Your task to perform on an android device: Go to accessibility settings Image 0: 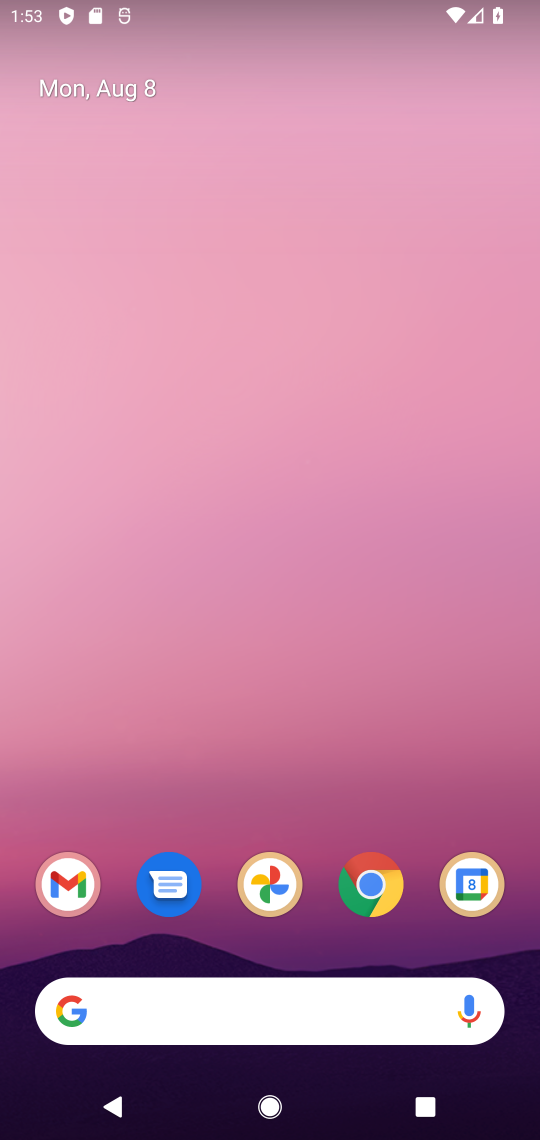
Step 0: drag from (295, 775) to (292, 132)
Your task to perform on an android device: Go to accessibility settings Image 1: 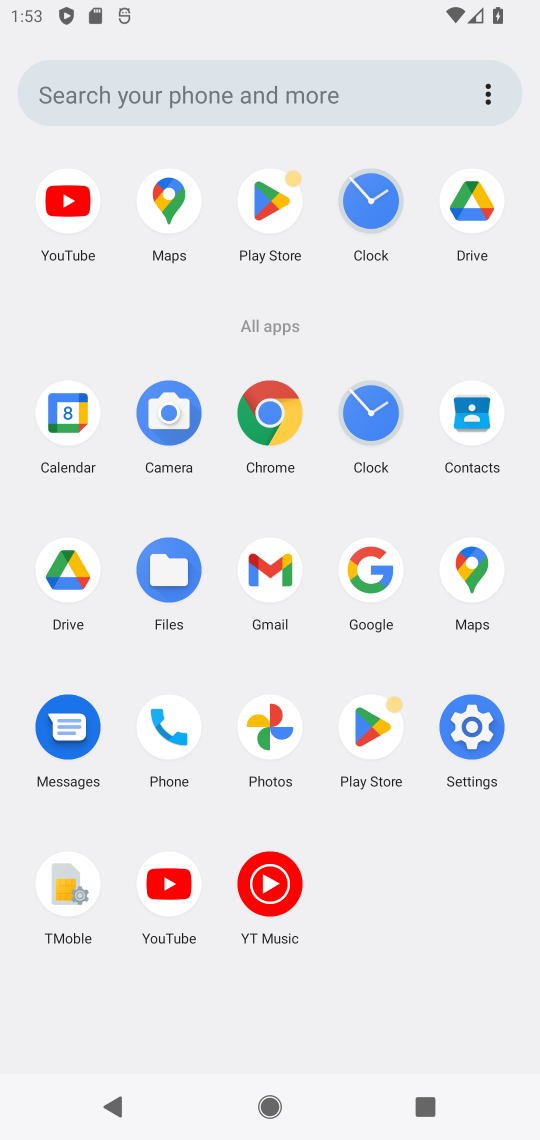
Step 1: click (473, 727)
Your task to perform on an android device: Go to accessibility settings Image 2: 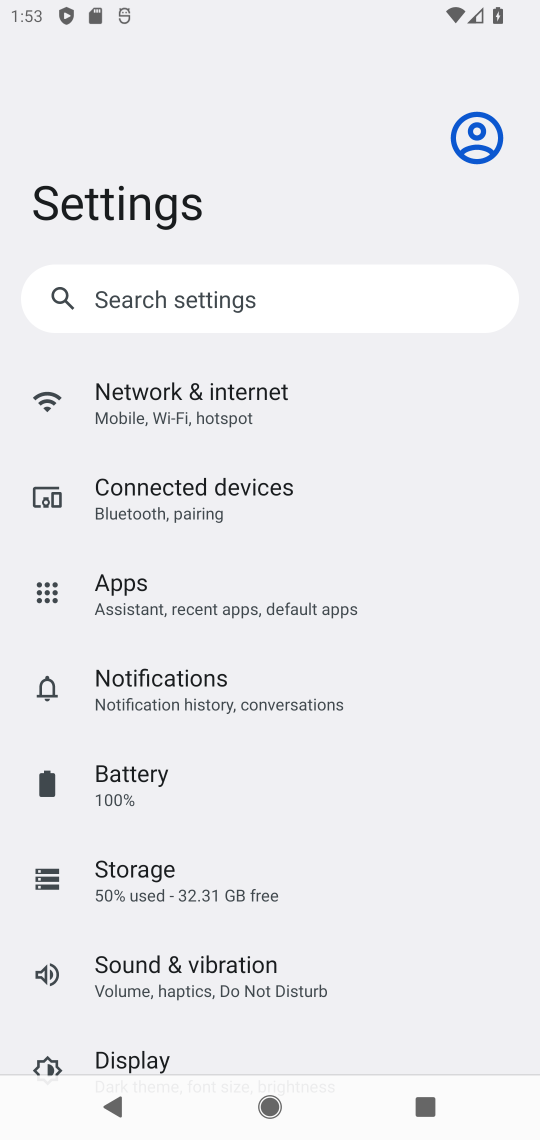
Step 2: drag from (364, 946) to (368, 588)
Your task to perform on an android device: Go to accessibility settings Image 3: 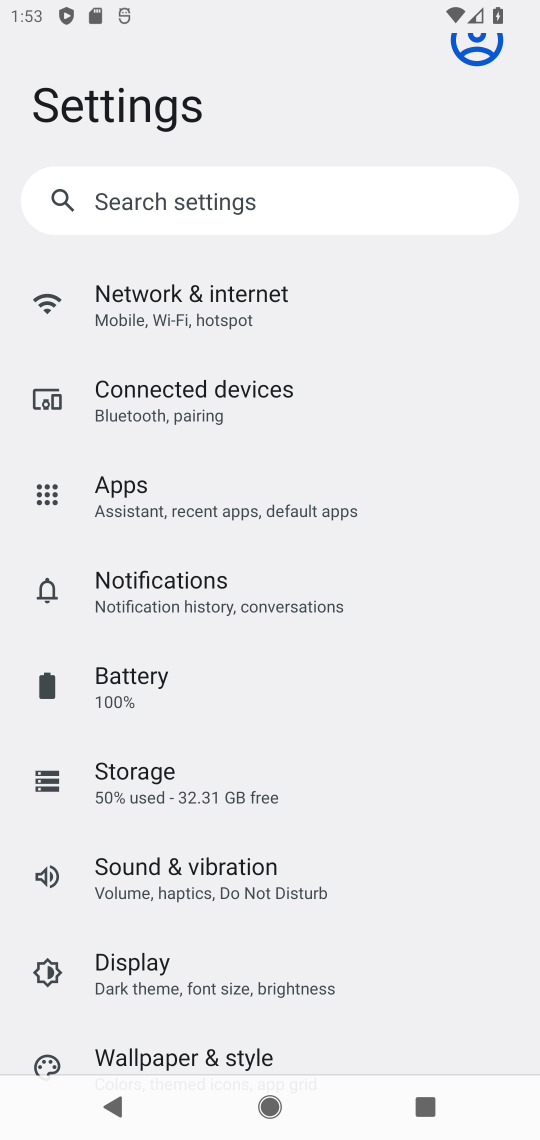
Step 3: drag from (382, 849) to (352, 547)
Your task to perform on an android device: Go to accessibility settings Image 4: 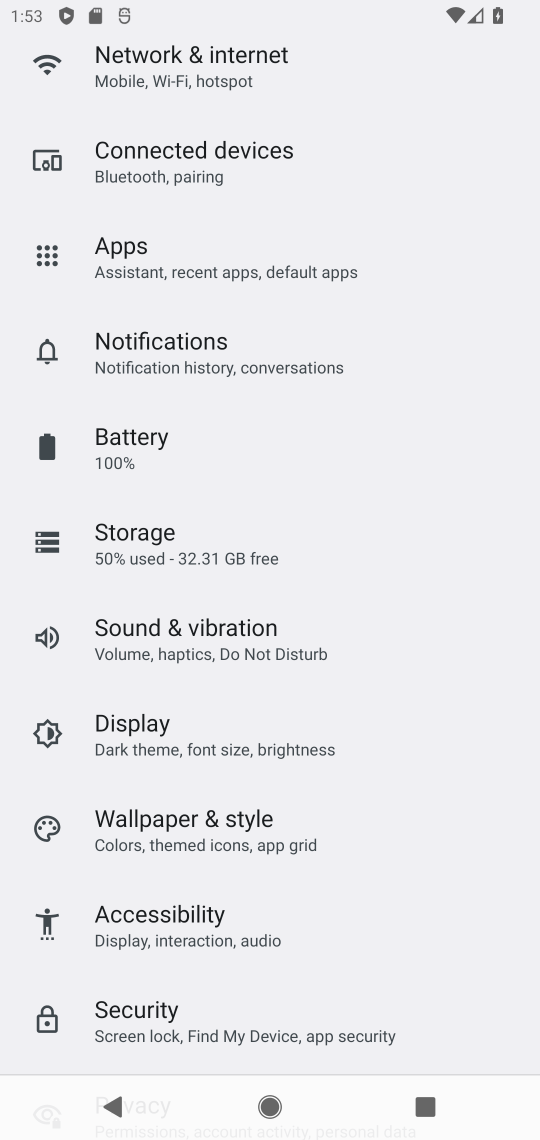
Step 4: click (162, 903)
Your task to perform on an android device: Go to accessibility settings Image 5: 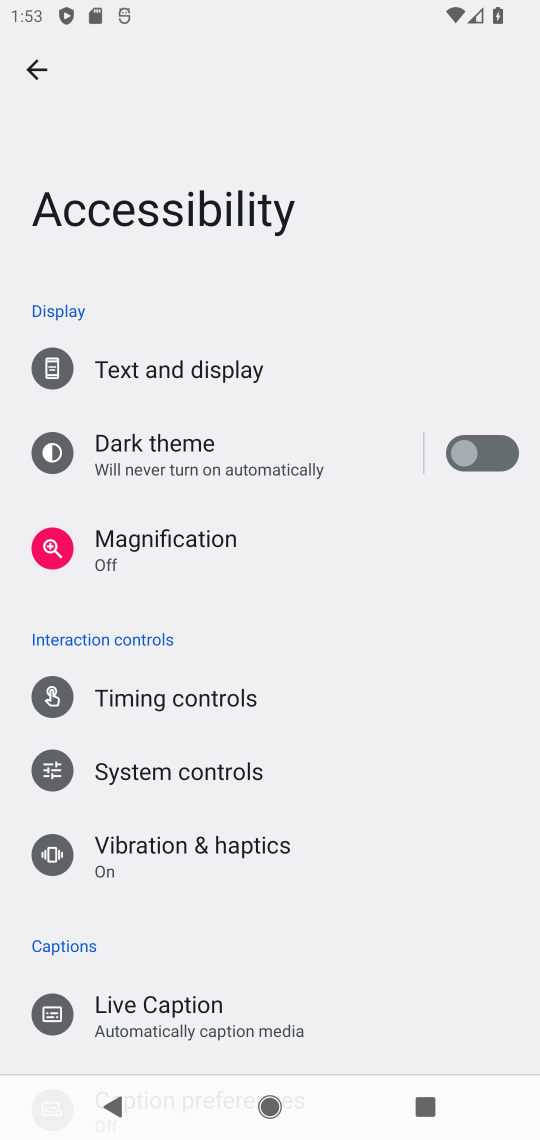
Step 5: task complete